Your task to perform on an android device: Show me productivity apps on the Play Store Image 0: 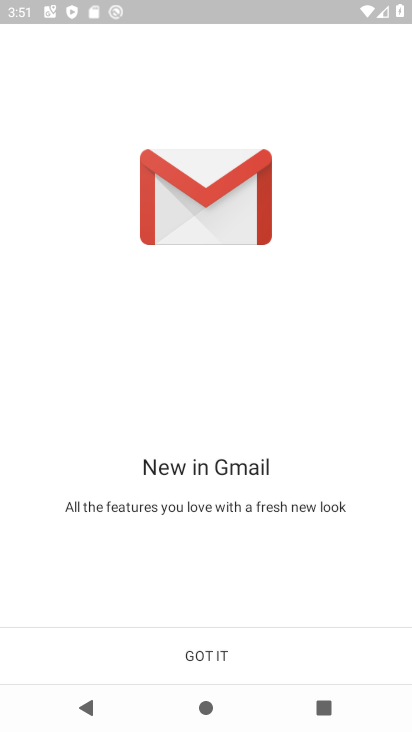
Step 0: press home button
Your task to perform on an android device: Show me productivity apps on the Play Store Image 1: 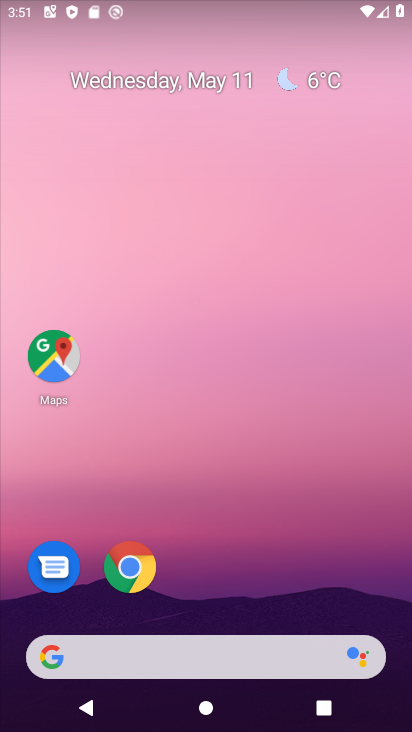
Step 1: drag from (264, 569) to (290, 204)
Your task to perform on an android device: Show me productivity apps on the Play Store Image 2: 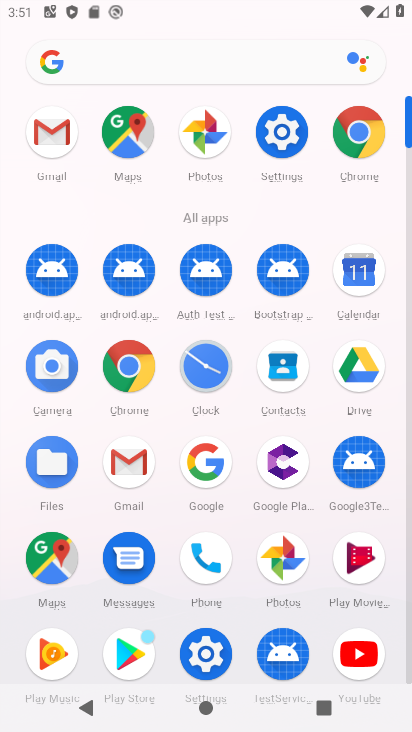
Step 2: click (116, 650)
Your task to perform on an android device: Show me productivity apps on the Play Store Image 3: 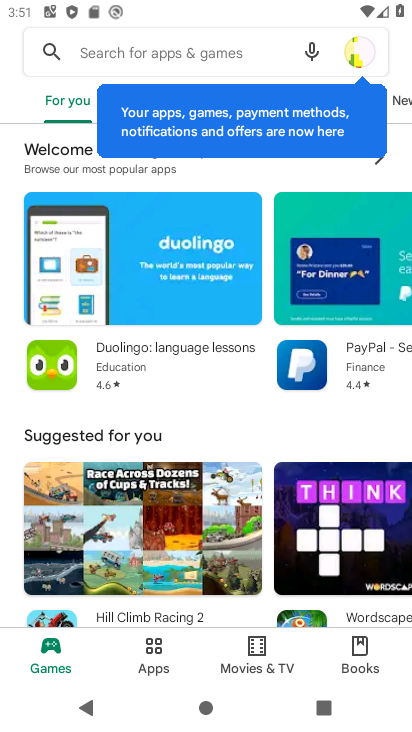
Step 3: click (143, 637)
Your task to perform on an android device: Show me productivity apps on the Play Store Image 4: 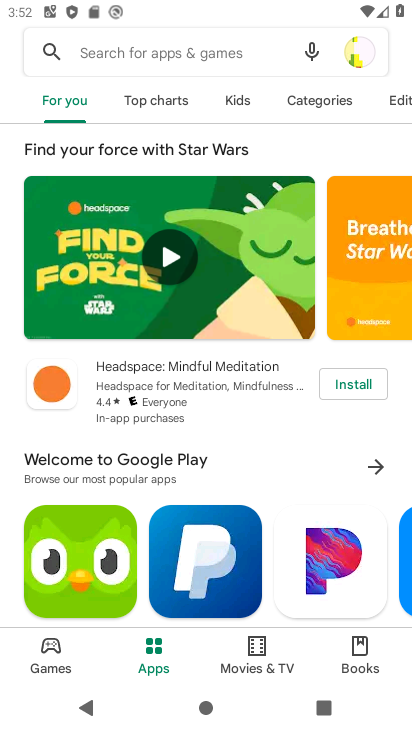
Step 4: task complete